Your task to perform on an android device: Search for pizza restaurants on Maps Image 0: 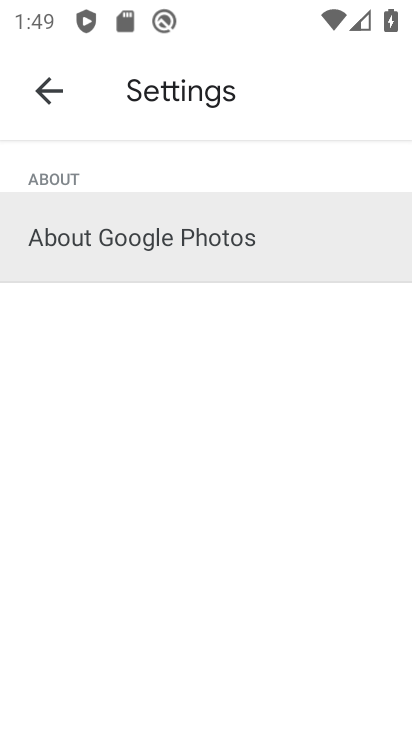
Step 0: press home button
Your task to perform on an android device: Search for pizza restaurants on Maps Image 1: 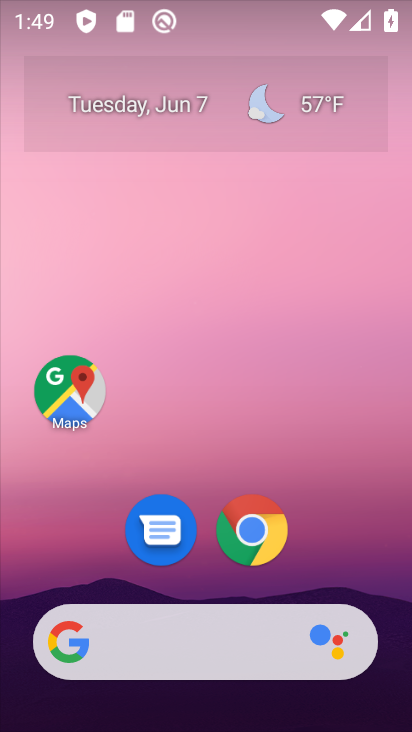
Step 1: drag from (252, 429) to (201, 118)
Your task to perform on an android device: Search for pizza restaurants on Maps Image 2: 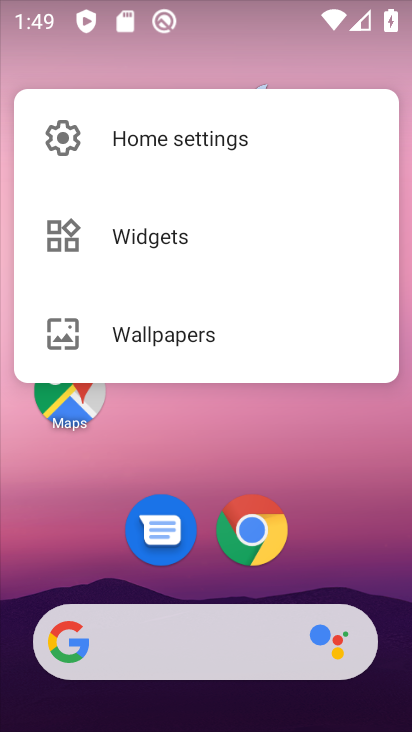
Step 2: drag from (203, 578) to (191, 95)
Your task to perform on an android device: Search for pizza restaurants on Maps Image 3: 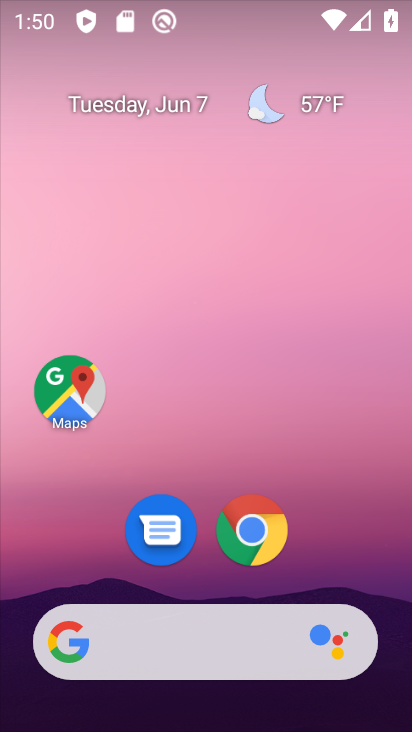
Step 3: click (178, 143)
Your task to perform on an android device: Search for pizza restaurants on Maps Image 4: 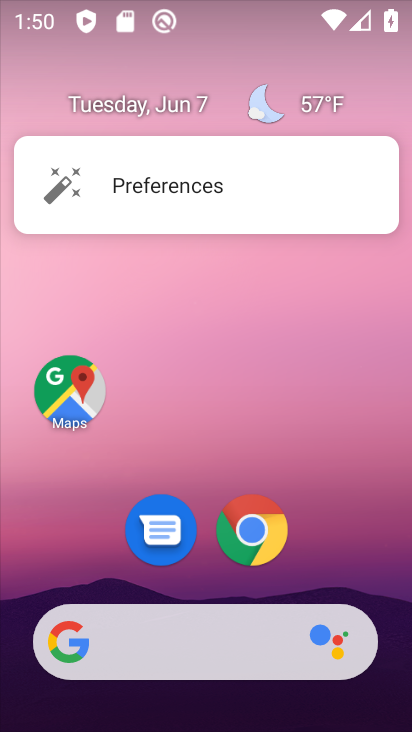
Step 4: click (77, 392)
Your task to perform on an android device: Search for pizza restaurants on Maps Image 5: 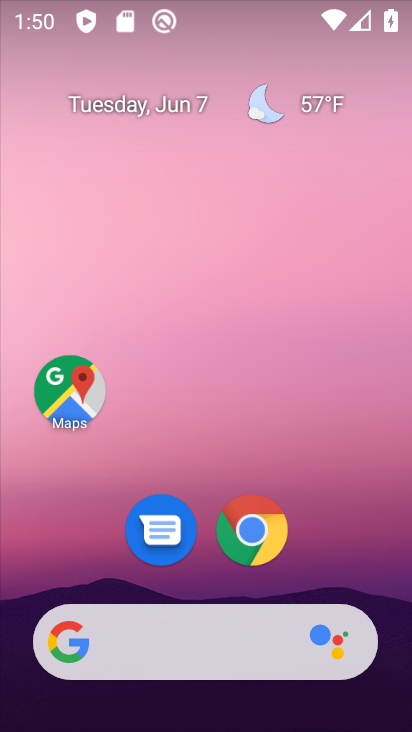
Step 5: click (67, 380)
Your task to perform on an android device: Search for pizza restaurants on Maps Image 6: 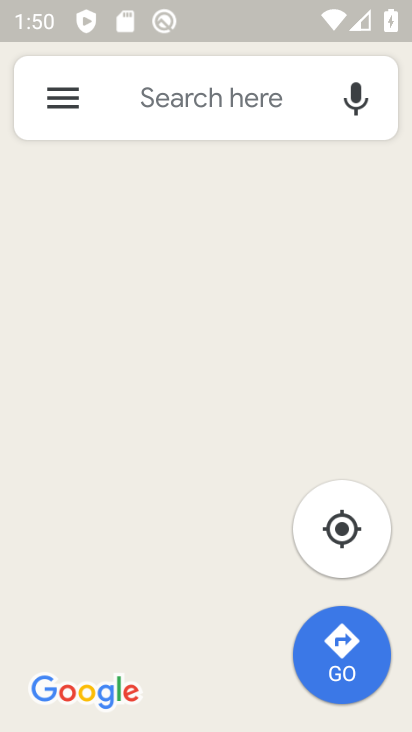
Step 6: click (225, 109)
Your task to perform on an android device: Search for pizza restaurants on Maps Image 7: 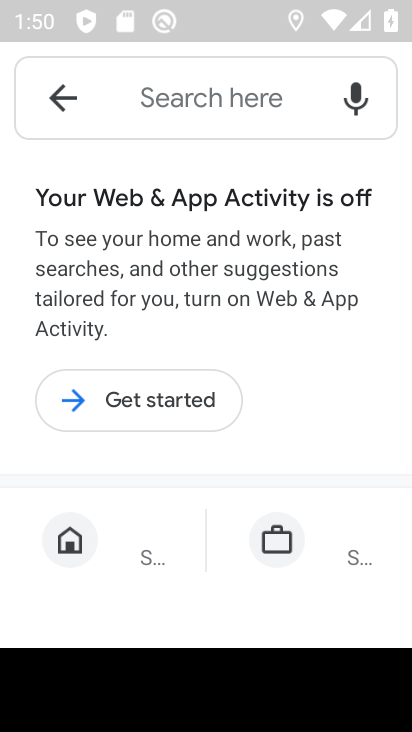
Step 7: click (135, 387)
Your task to perform on an android device: Search for pizza restaurants on Maps Image 8: 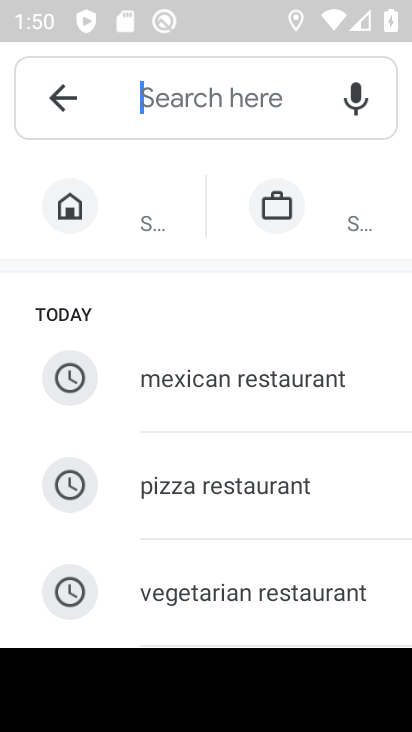
Step 8: click (250, 496)
Your task to perform on an android device: Search for pizza restaurants on Maps Image 9: 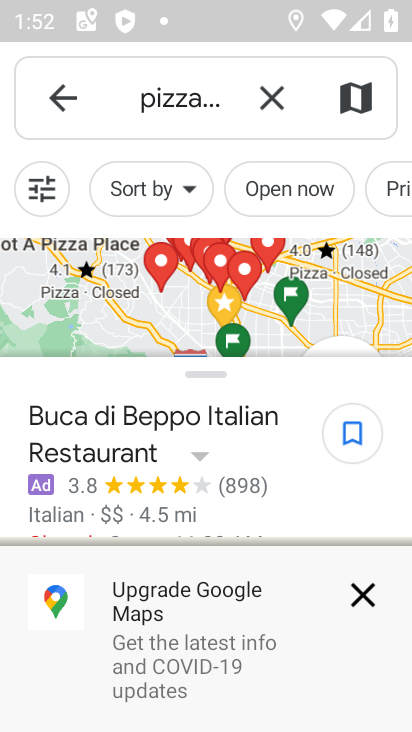
Step 9: task complete